Your task to perform on an android device: Open the map Image 0: 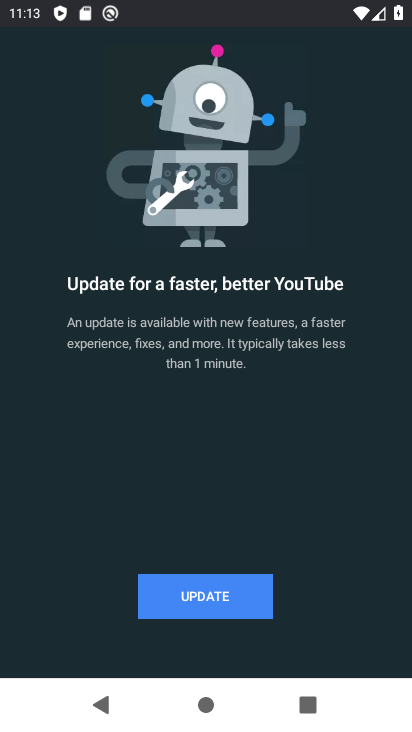
Step 0: press home button
Your task to perform on an android device: Open the map Image 1: 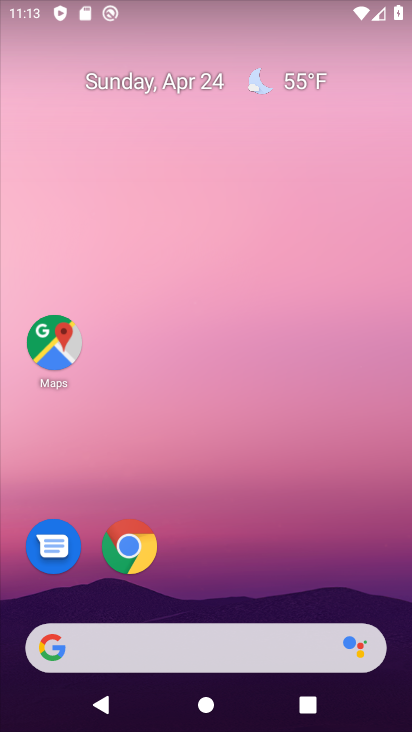
Step 1: click (50, 348)
Your task to perform on an android device: Open the map Image 2: 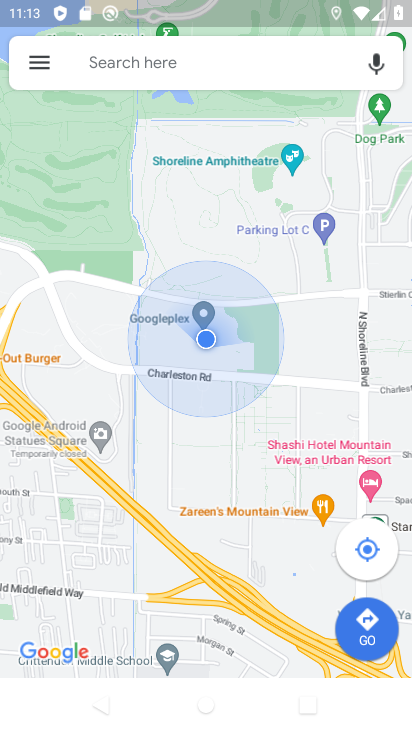
Step 2: task complete